Your task to perform on an android device: Open Chrome and go to the settings page Image 0: 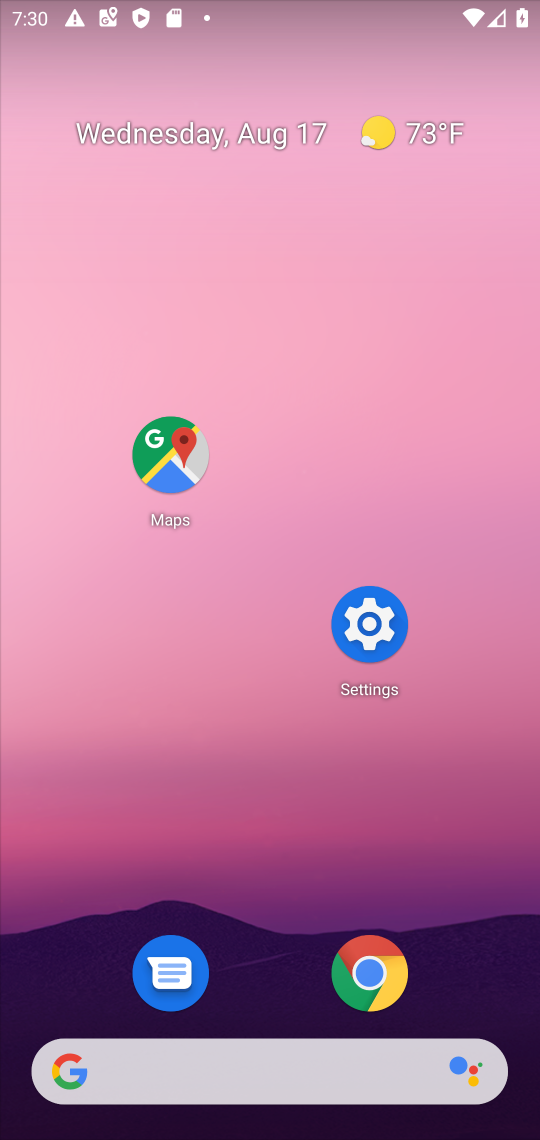
Step 0: click (365, 972)
Your task to perform on an android device: Open Chrome and go to the settings page Image 1: 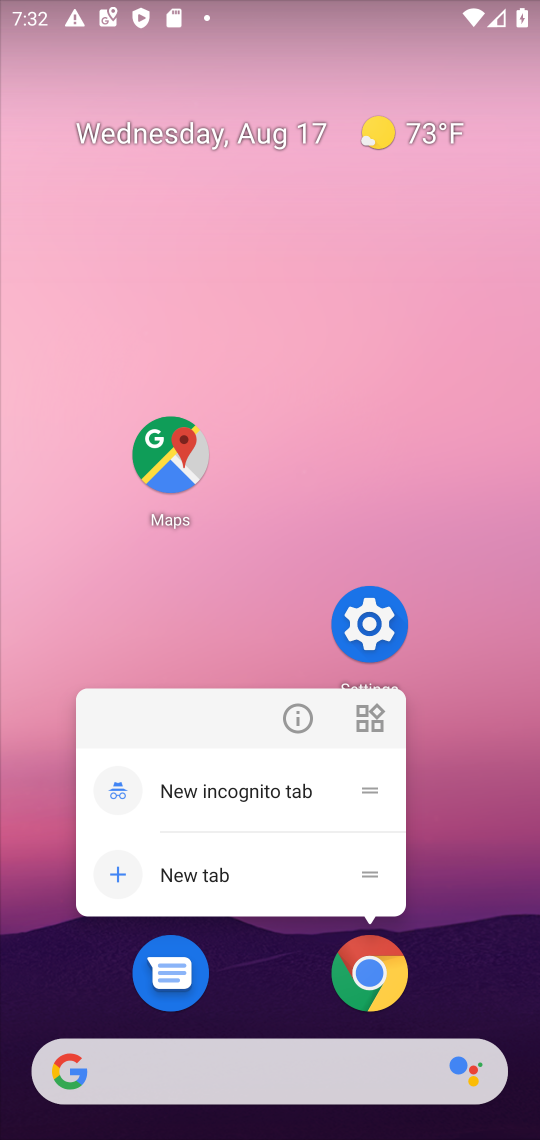
Step 1: click (359, 968)
Your task to perform on an android device: Open Chrome and go to the settings page Image 2: 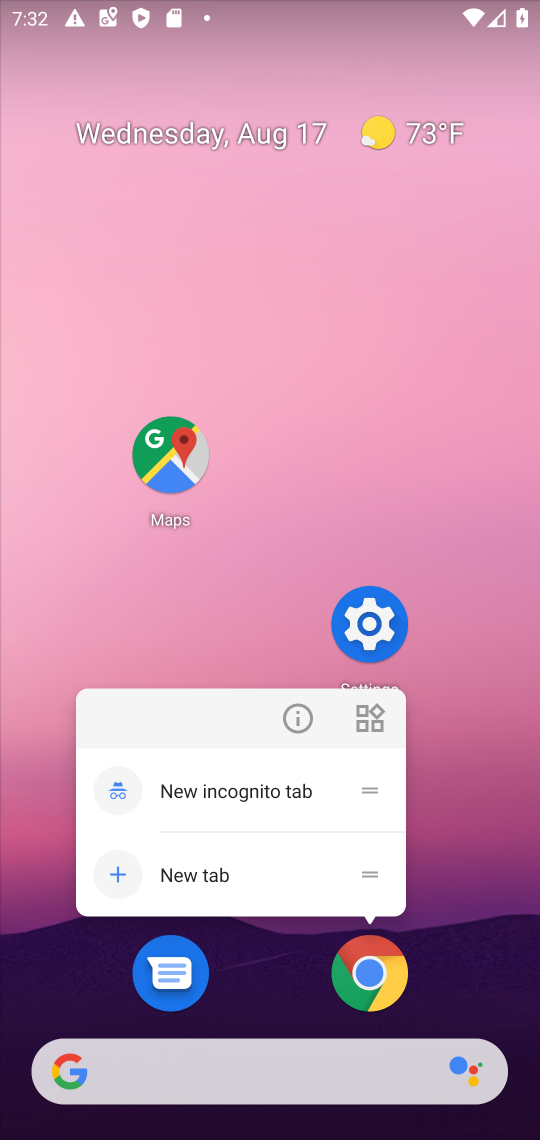
Step 2: click (365, 970)
Your task to perform on an android device: Open Chrome and go to the settings page Image 3: 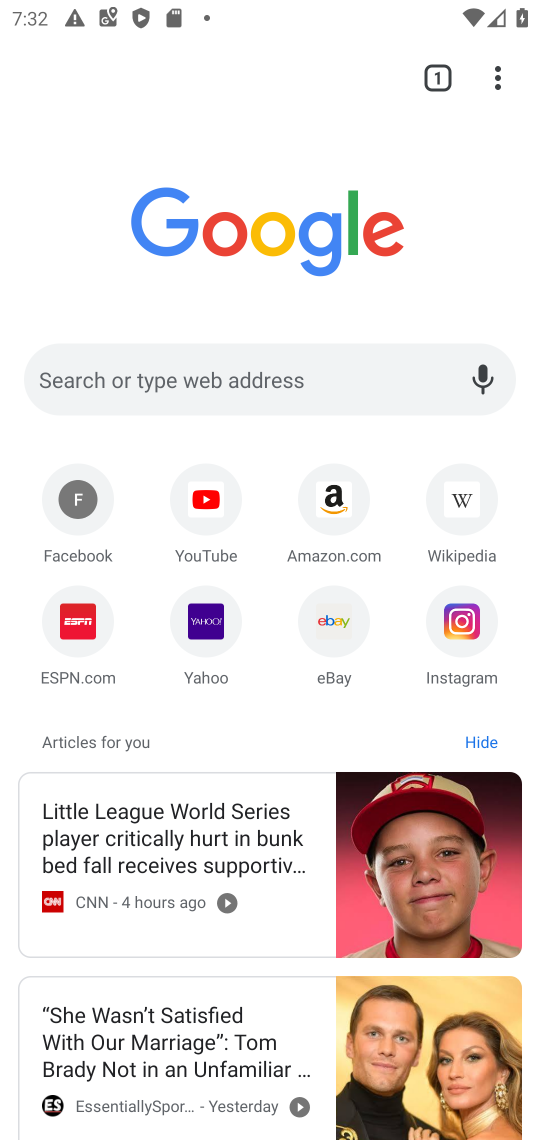
Step 3: task complete